Your task to perform on an android device: open sync settings in chrome Image 0: 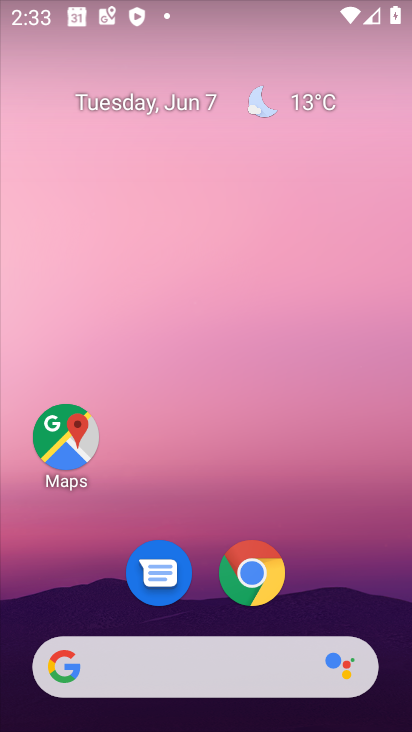
Step 0: click (253, 576)
Your task to perform on an android device: open sync settings in chrome Image 1: 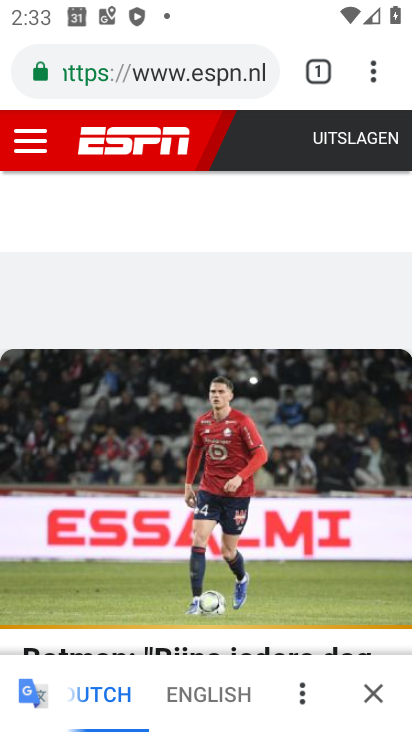
Step 1: click (380, 74)
Your task to perform on an android device: open sync settings in chrome Image 2: 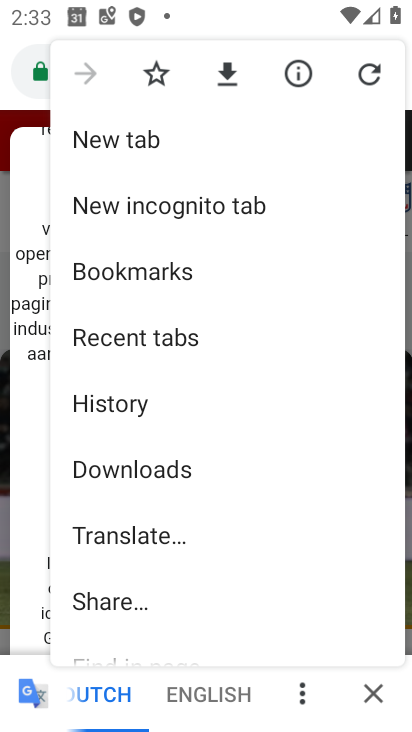
Step 2: drag from (187, 603) to (189, 206)
Your task to perform on an android device: open sync settings in chrome Image 3: 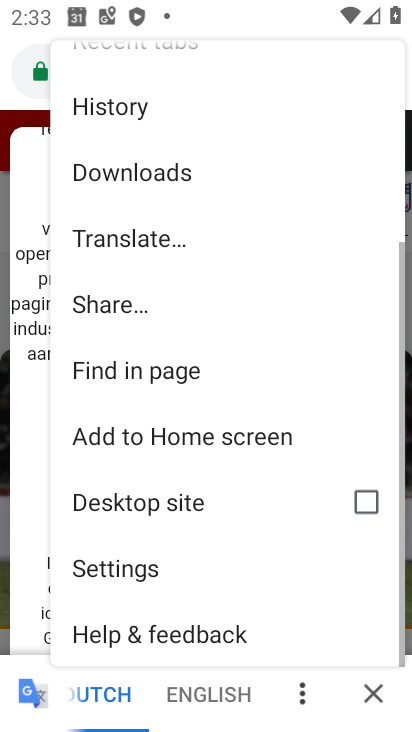
Step 3: click (159, 568)
Your task to perform on an android device: open sync settings in chrome Image 4: 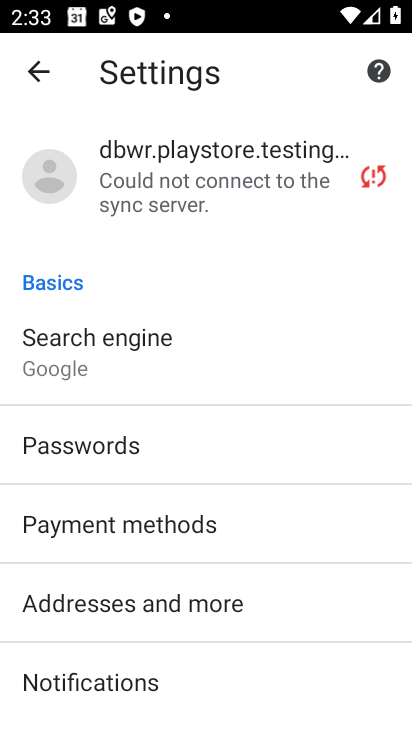
Step 4: click (135, 183)
Your task to perform on an android device: open sync settings in chrome Image 5: 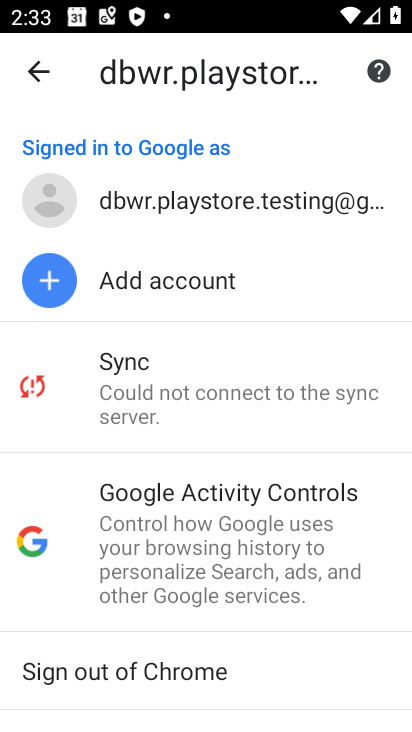
Step 5: click (216, 408)
Your task to perform on an android device: open sync settings in chrome Image 6: 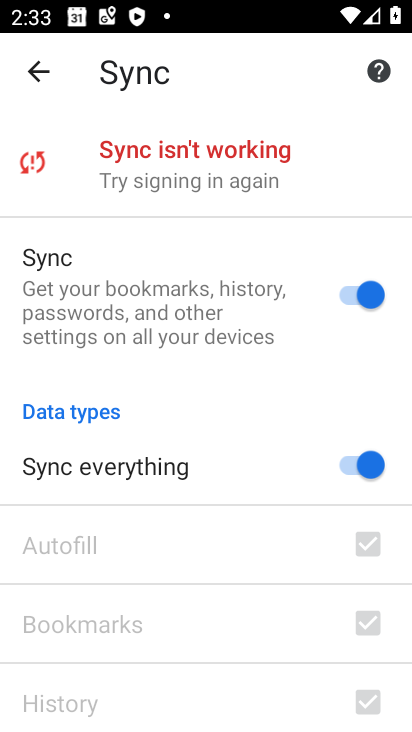
Step 6: task complete